Your task to perform on an android device: change alarm snooze length Image 0: 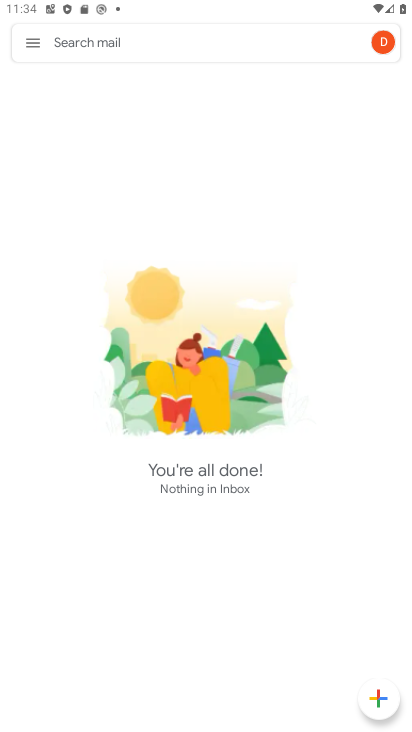
Step 0: press home button
Your task to perform on an android device: change alarm snooze length Image 1: 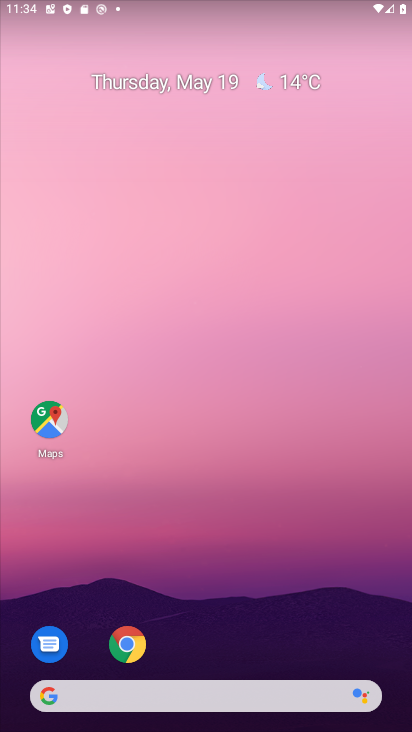
Step 1: drag from (189, 691) to (161, 8)
Your task to perform on an android device: change alarm snooze length Image 2: 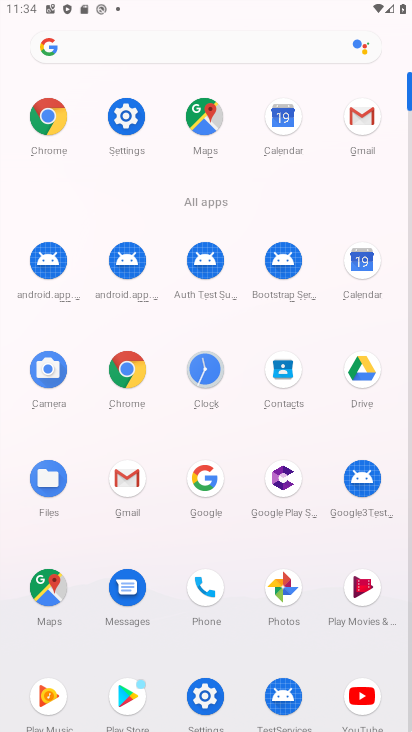
Step 2: click (215, 375)
Your task to perform on an android device: change alarm snooze length Image 3: 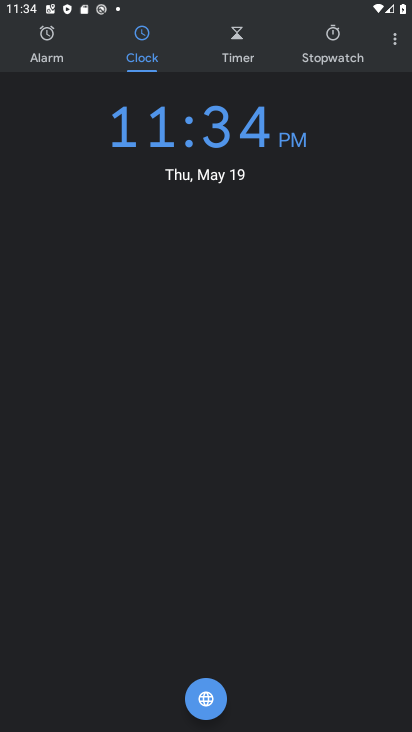
Step 3: click (397, 41)
Your task to perform on an android device: change alarm snooze length Image 4: 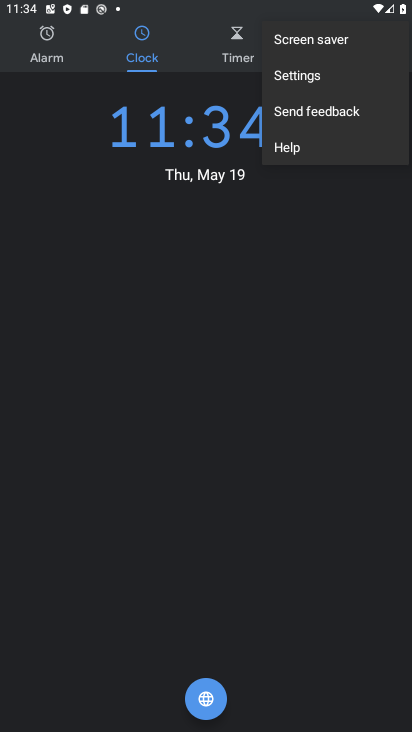
Step 4: click (312, 71)
Your task to perform on an android device: change alarm snooze length Image 5: 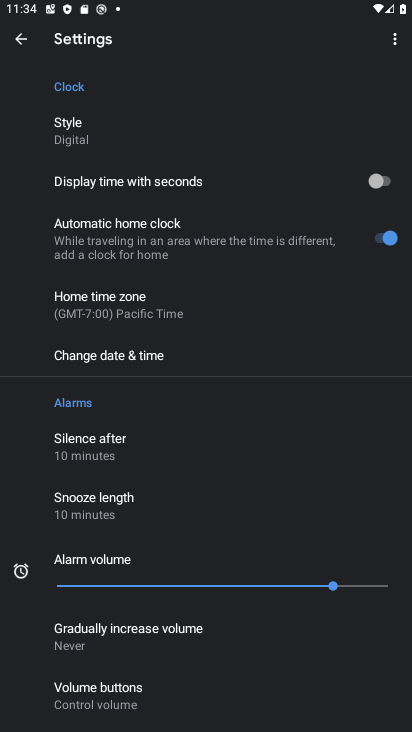
Step 5: click (104, 487)
Your task to perform on an android device: change alarm snooze length Image 6: 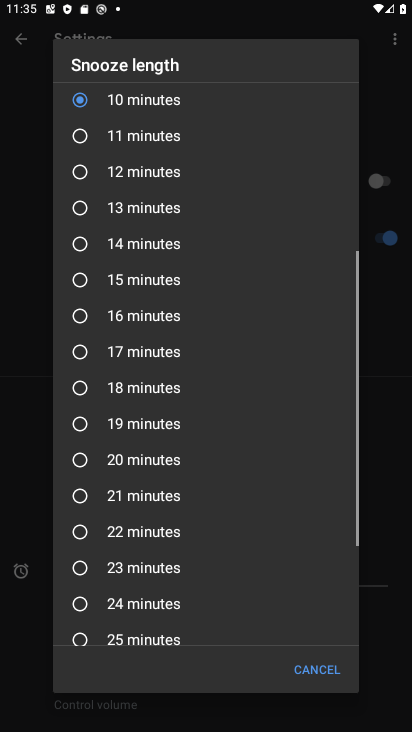
Step 6: click (119, 144)
Your task to perform on an android device: change alarm snooze length Image 7: 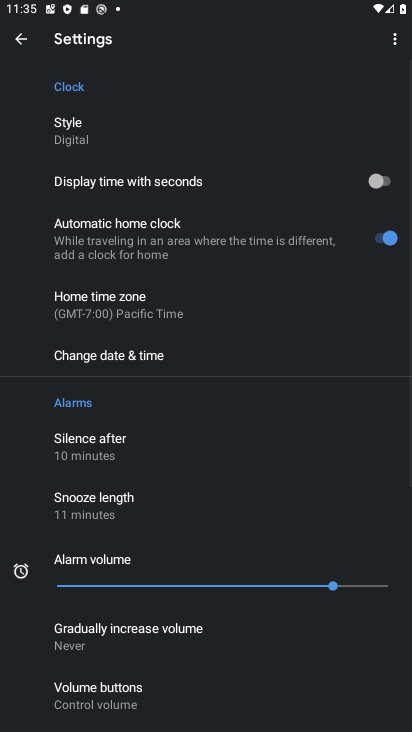
Step 7: task complete